Your task to perform on an android device: star an email in the gmail app Image 0: 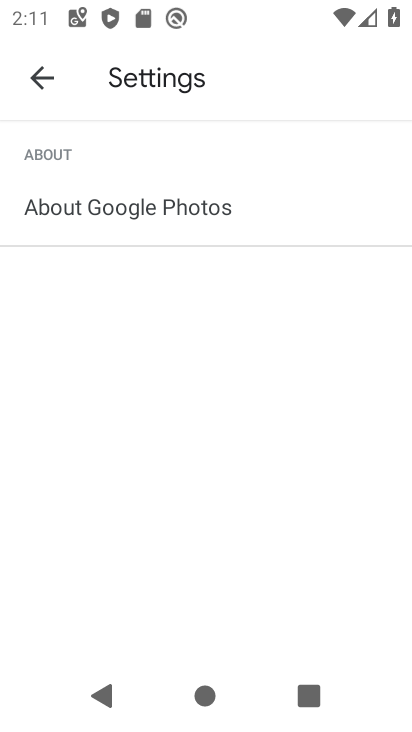
Step 0: press home button
Your task to perform on an android device: star an email in the gmail app Image 1: 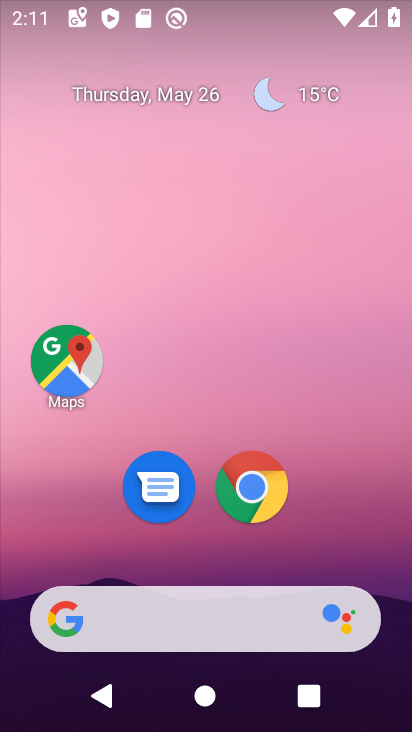
Step 1: drag from (217, 552) to (211, 197)
Your task to perform on an android device: star an email in the gmail app Image 2: 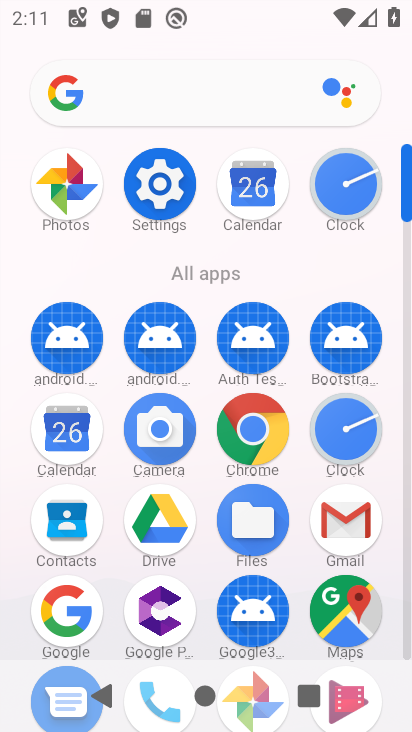
Step 2: click (347, 518)
Your task to perform on an android device: star an email in the gmail app Image 3: 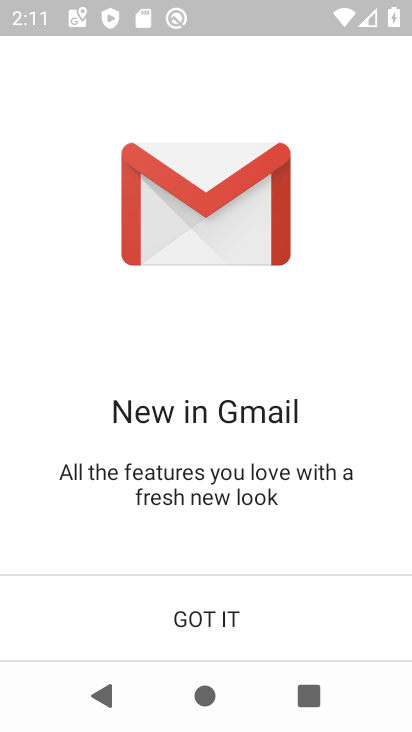
Step 3: click (253, 582)
Your task to perform on an android device: star an email in the gmail app Image 4: 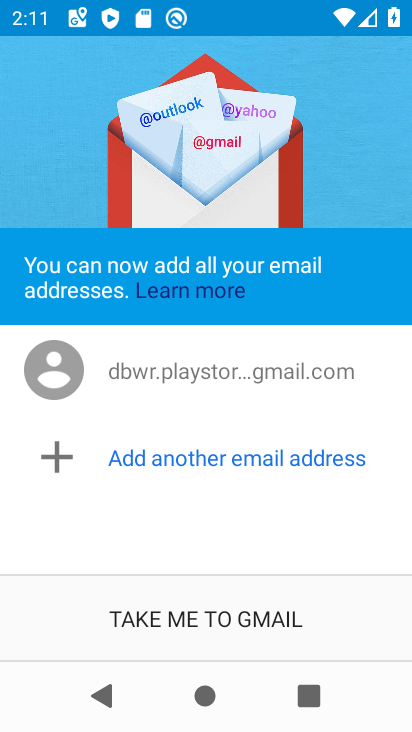
Step 4: click (242, 604)
Your task to perform on an android device: star an email in the gmail app Image 5: 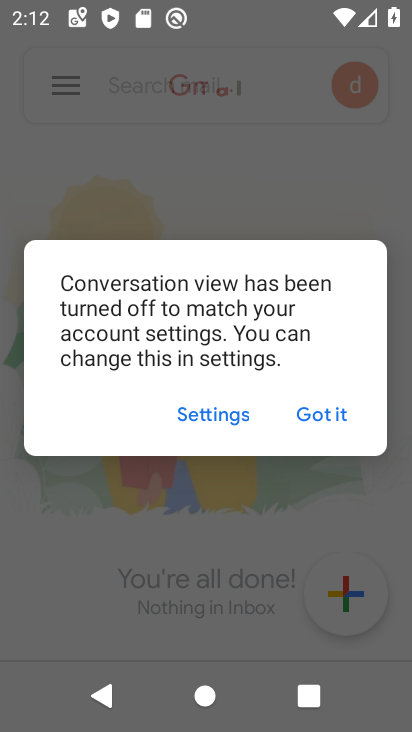
Step 5: click (304, 422)
Your task to perform on an android device: star an email in the gmail app Image 6: 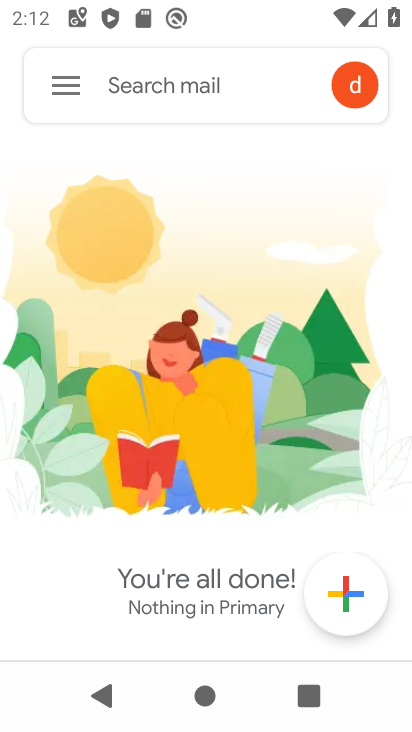
Step 6: click (55, 83)
Your task to perform on an android device: star an email in the gmail app Image 7: 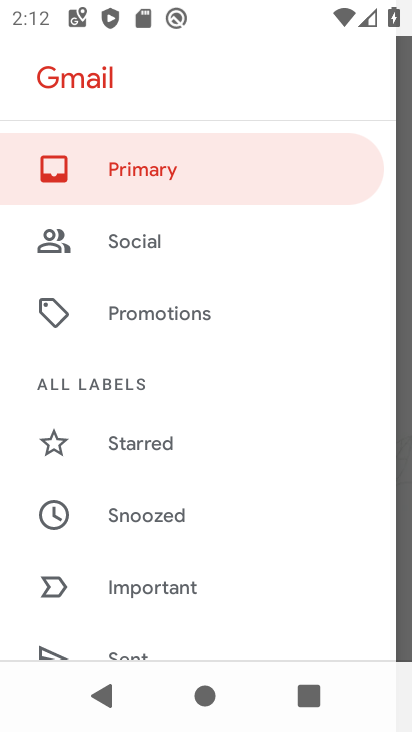
Step 7: drag from (188, 547) to (205, 242)
Your task to perform on an android device: star an email in the gmail app Image 8: 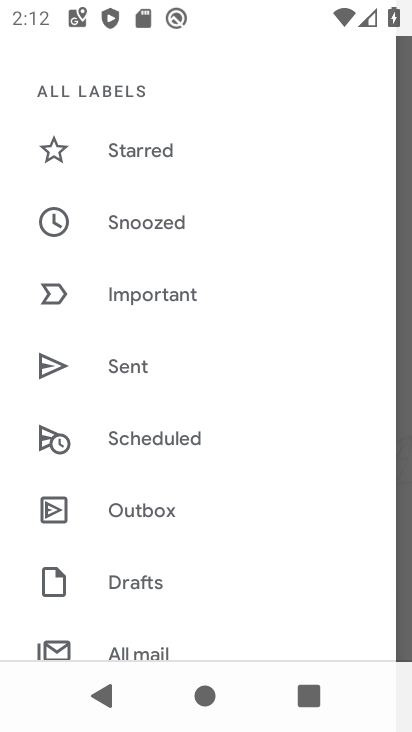
Step 8: drag from (182, 444) to (174, 357)
Your task to perform on an android device: star an email in the gmail app Image 9: 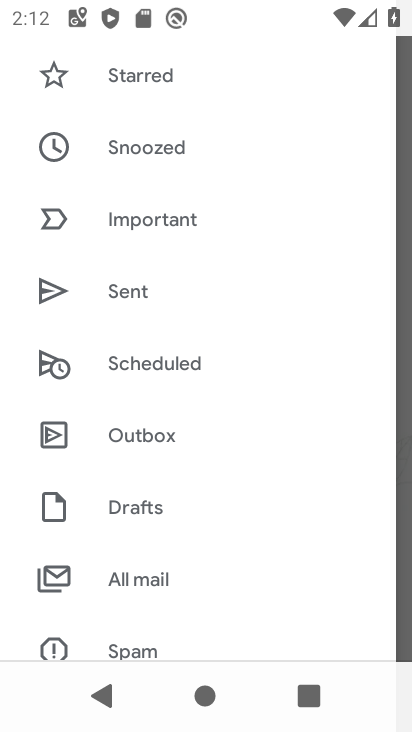
Step 9: click (144, 566)
Your task to perform on an android device: star an email in the gmail app Image 10: 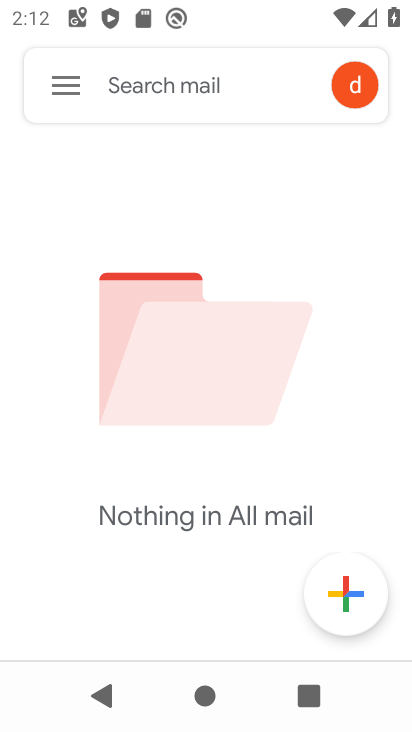
Step 10: click (58, 86)
Your task to perform on an android device: star an email in the gmail app Image 11: 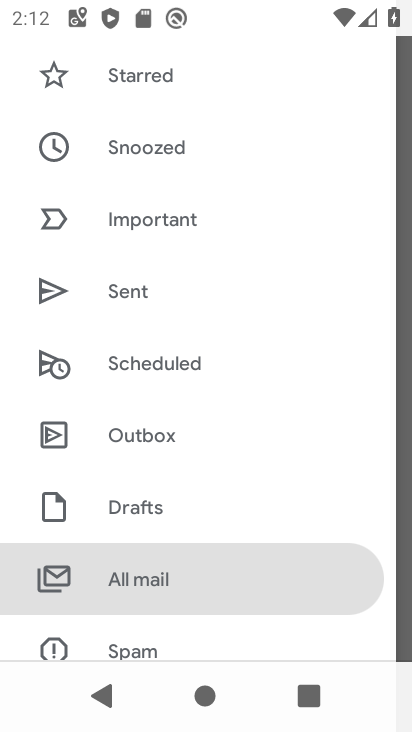
Step 11: click (153, 566)
Your task to perform on an android device: star an email in the gmail app Image 12: 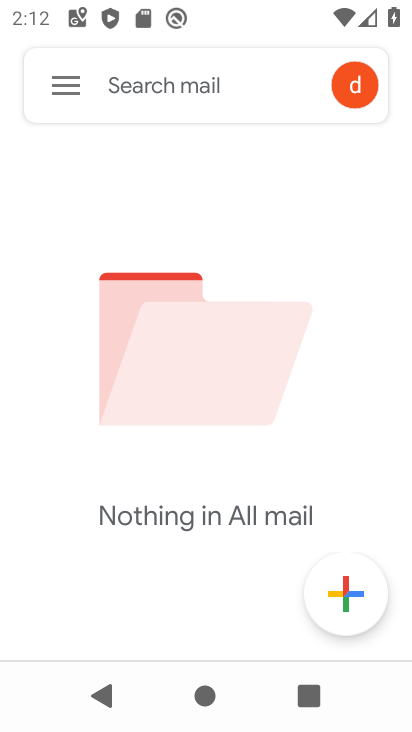
Step 12: task complete